Your task to perform on an android device: empty trash in google photos Image 0: 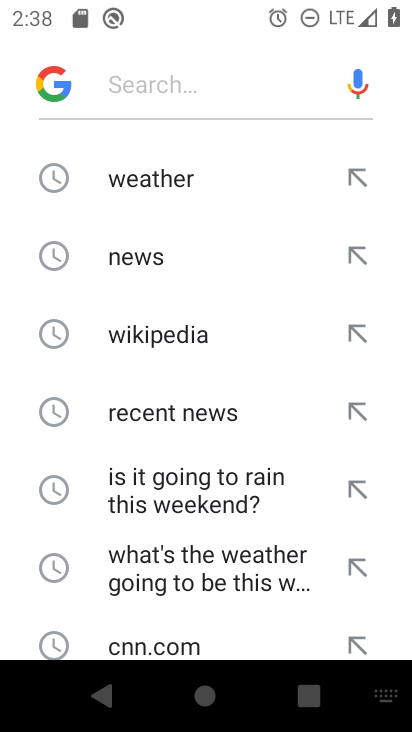
Step 0: press home button
Your task to perform on an android device: empty trash in google photos Image 1: 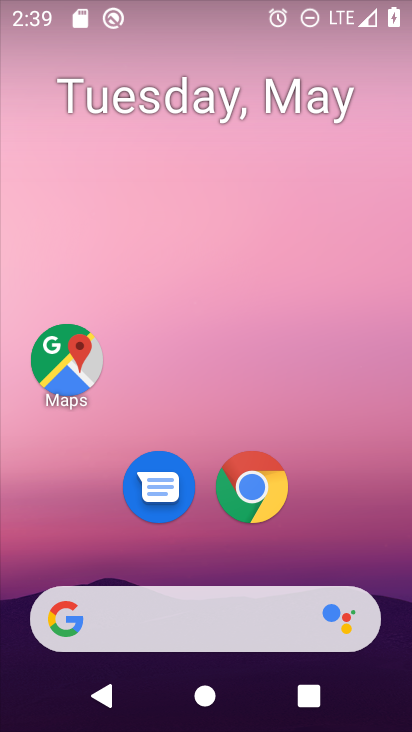
Step 1: drag from (7, 462) to (260, 133)
Your task to perform on an android device: empty trash in google photos Image 2: 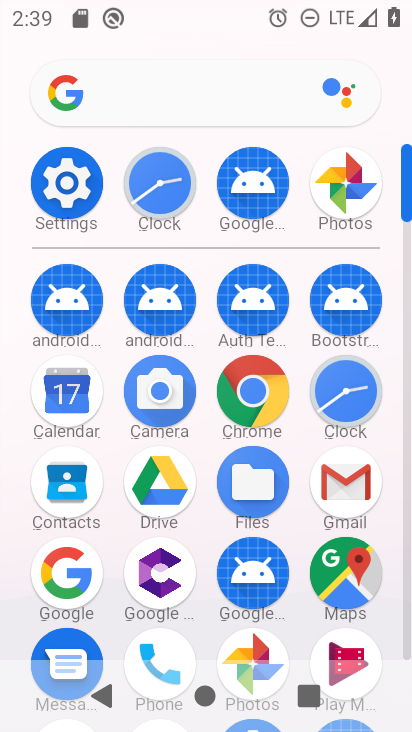
Step 2: click (347, 187)
Your task to perform on an android device: empty trash in google photos Image 3: 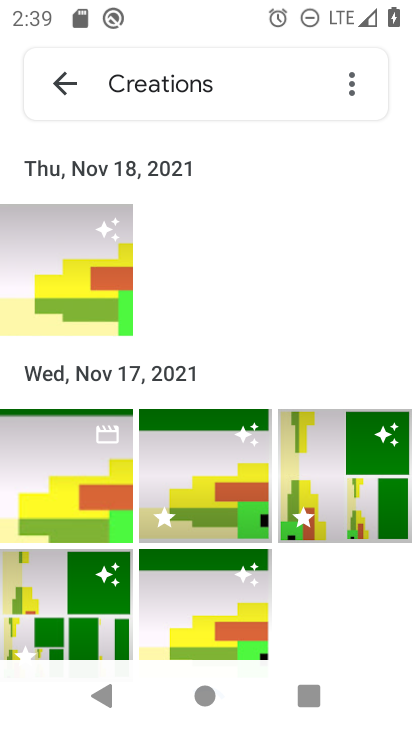
Step 3: press back button
Your task to perform on an android device: empty trash in google photos Image 4: 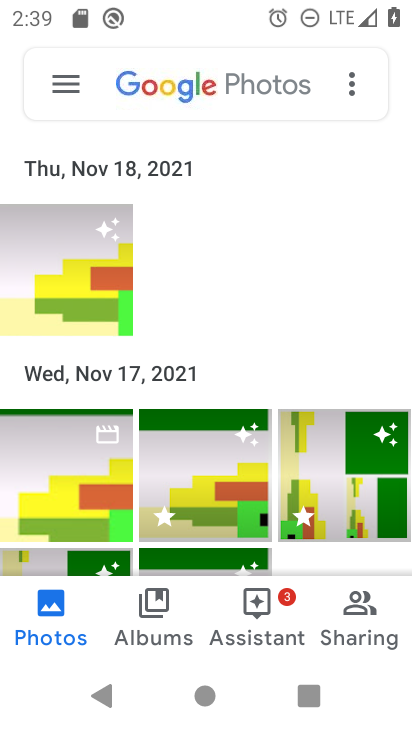
Step 4: click (51, 71)
Your task to perform on an android device: empty trash in google photos Image 5: 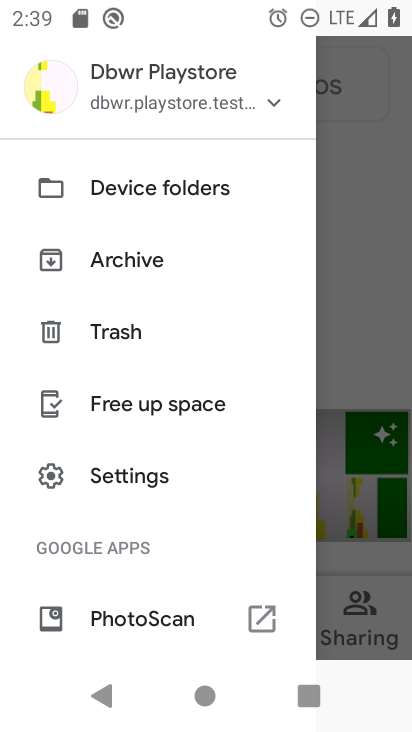
Step 5: click (153, 317)
Your task to perform on an android device: empty trash in google photos Image 6: 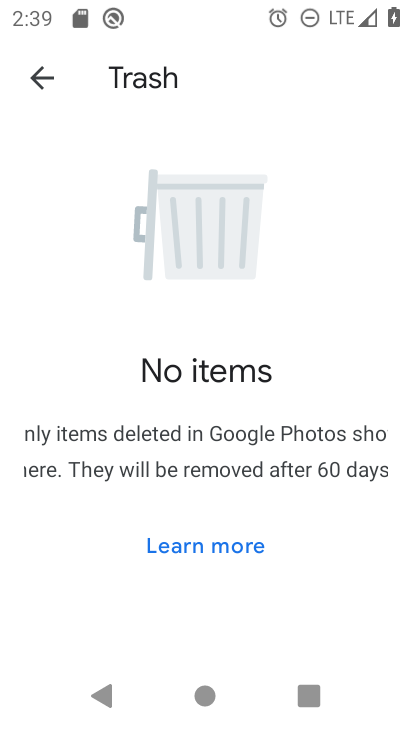
Step 6: task complete